Your task to perform on an android device: change notification settings in the gmail app Image 0: 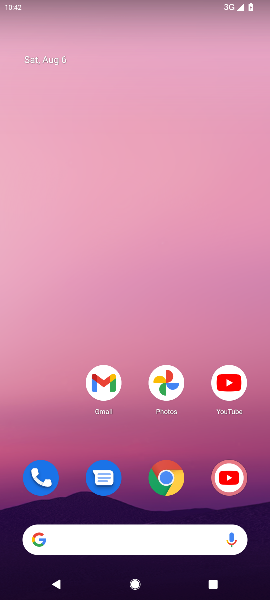
Step 0: drag from (142, 506) to (141, 118)
Your task to perform on an android device: change notification settings in the gmail app Image 1: 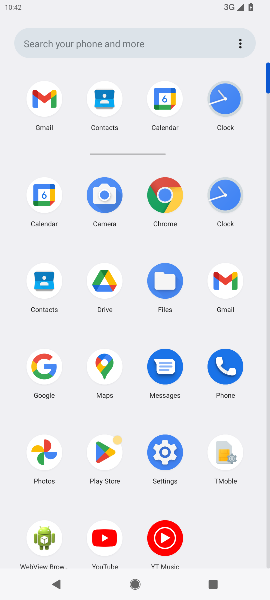
Step 1: click (37, 99)
Your task to perform on an android device: change notification settings in the gmail app Image 2: 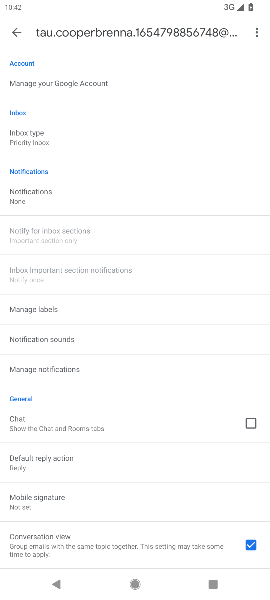
Step 2: click (4, 193)
Your task to perform on an android device: change notification settings in the gmail app Image 3: 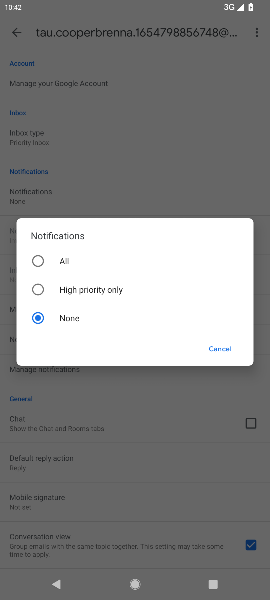
Step 3: click (34, 260)
Your task to perform on an android device: change notification settings in the gmail app Image 4: 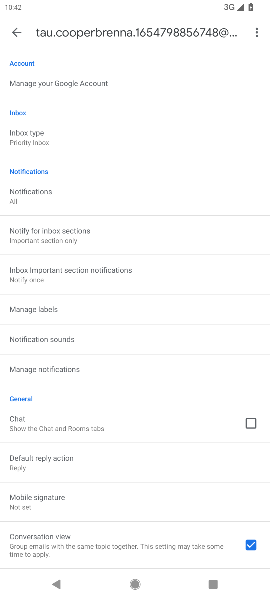
Step 4: task complete